Your task to perform on an android device: Open the calendar app, open the side menu, and click the "Day" option Image 0: 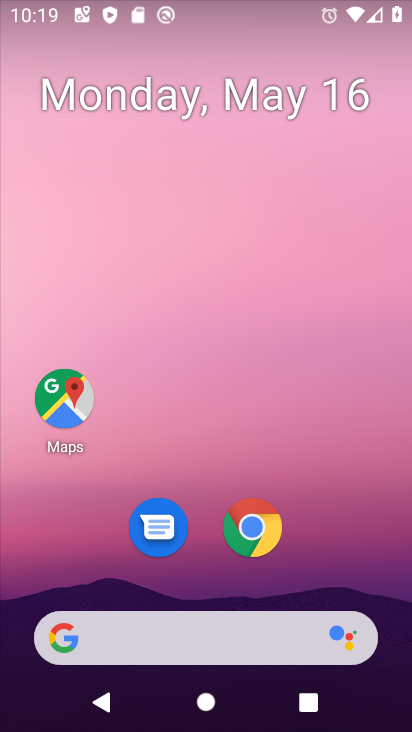
Step 0: drag from (338, 594) to (364, 9)
Your task to perform on an android device: Open the calendar app, open the side menu, and click the "Day" option Image 1: 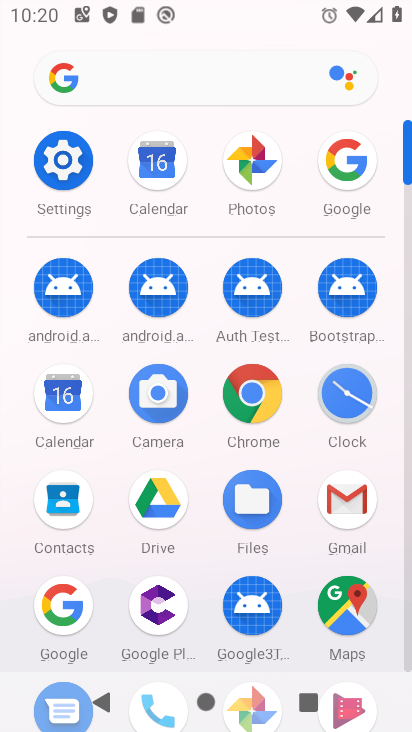
Step 1: click (143, 165)
Your task to perform on an android device: Open the calendar app, open the side menu, and click the "Day" option Image 2: 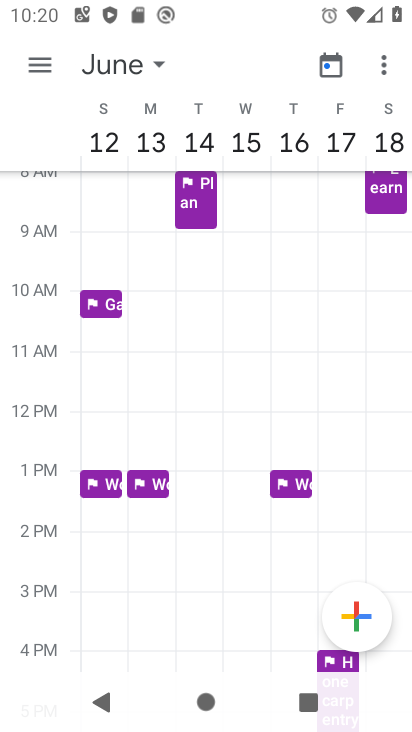
Step 2: click (34, 66)
Your task to perform on an android device: Open the calendar app, open the side menu, and click the "Day" option Image 3: 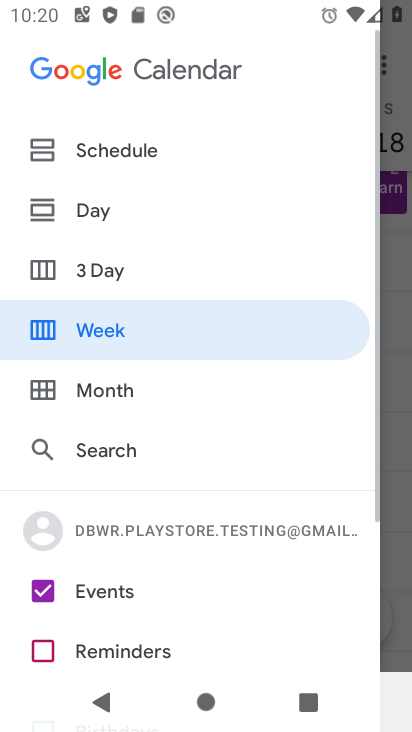
Step 3: click (89, 207)
Your task to perform on an android device: Open the calendar app, open the side menu, and click the "Day" option Image 4: 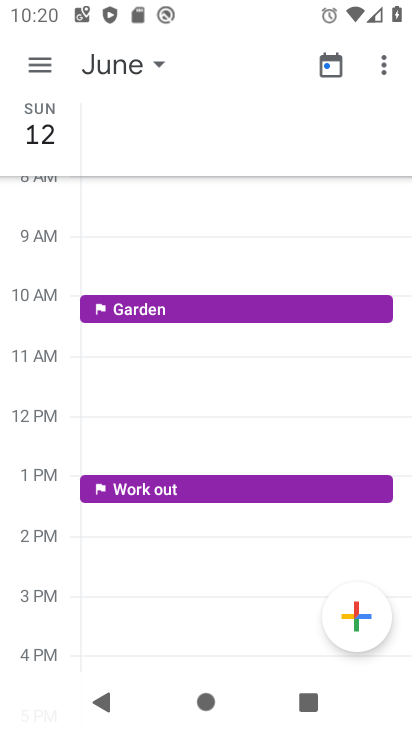
Step 4: task complete